Your task to perform on an android device: open app "The Home Depot" (install if not already installed) and go to login screen Image 0: 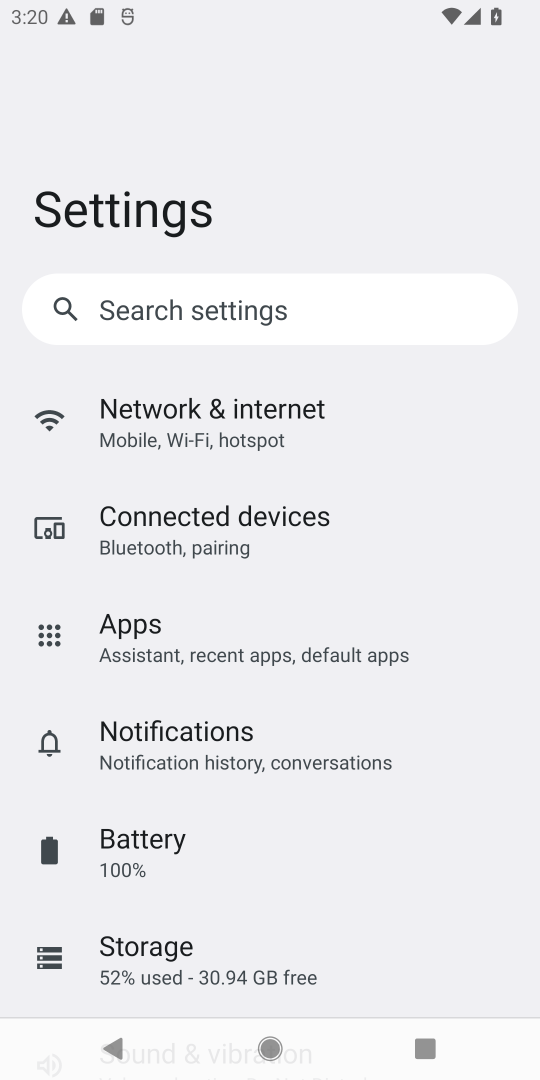
Step 0: press home button
Your task to perform on an android device: open app "The Home Depot" (install if not already installed) and go to login screen Image 1: 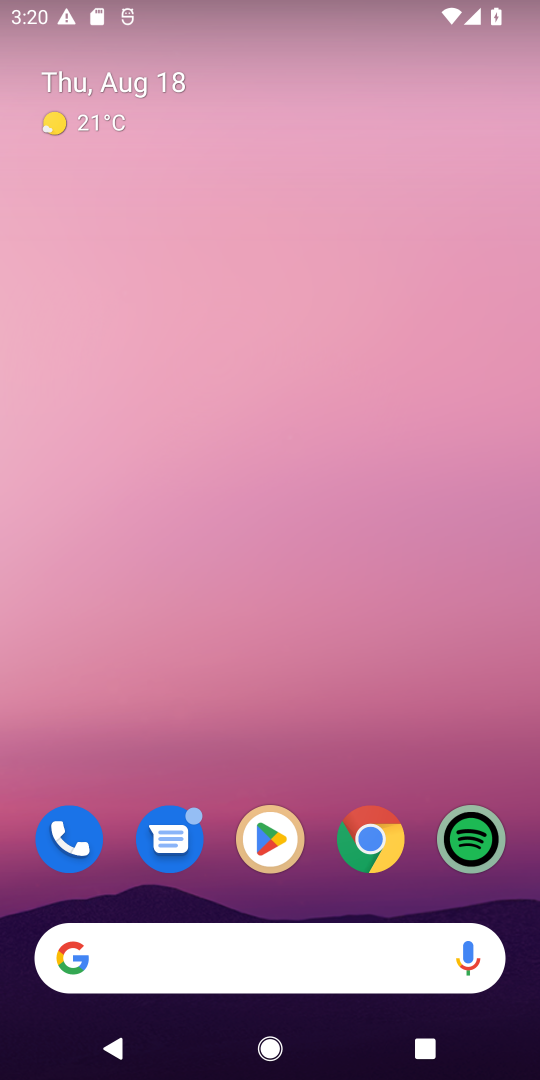
Step 1: click (255, 835)
Your task to perform on an android device: open app "The Home Depot" (install if not already installed) and go to login screen Image 2: 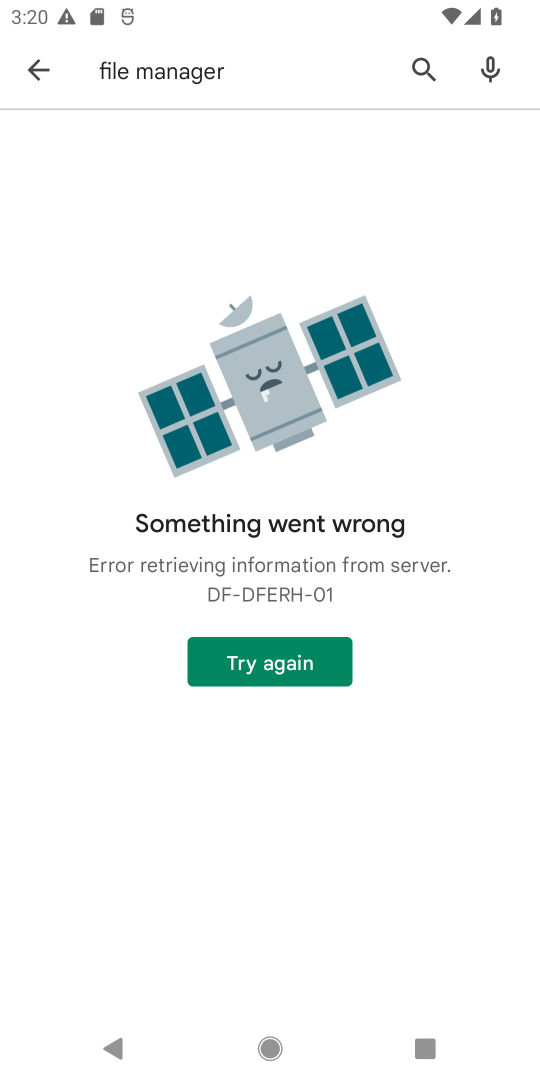
Step 2: click (33, 75)
Your task to perform on an android device: open app "The Home Depot" (install if not already installed) and go to login screen Image 3: 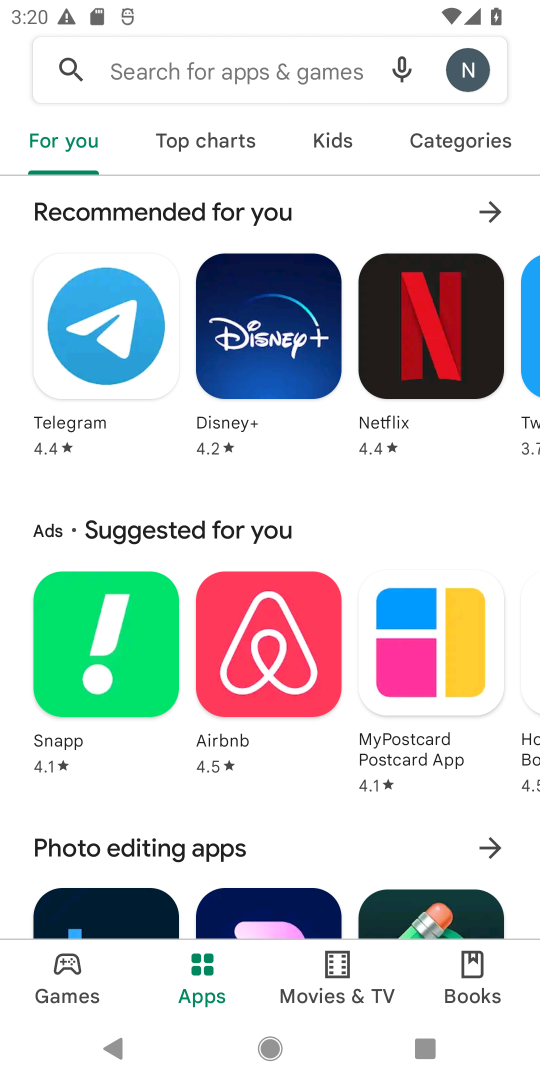
Step 3: click (197, 74)
Your task to perform on an android device: open app "The Home Depot" (install if not already installed) and go to login screen Image 4: 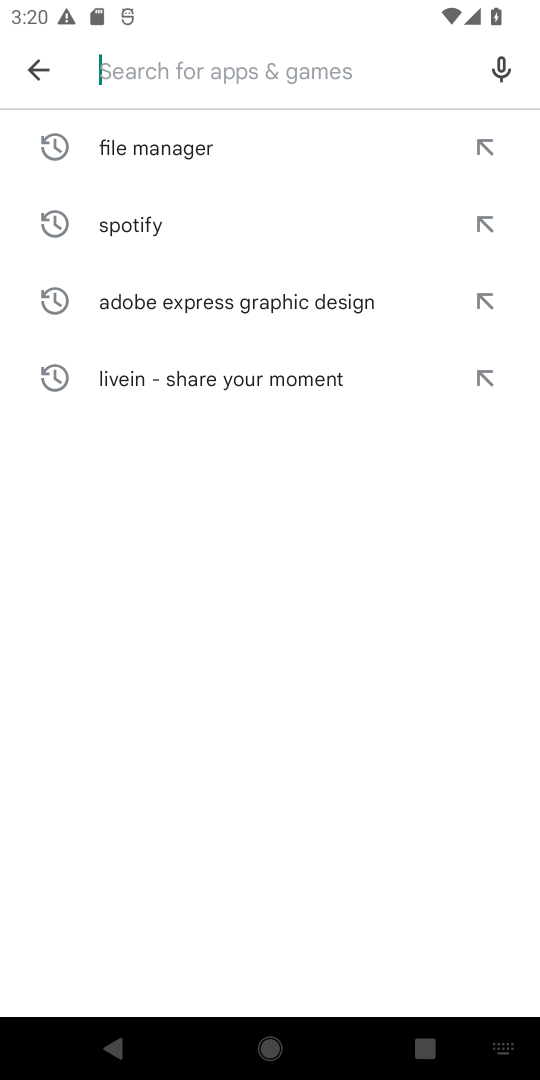
Step 4: type "The Home Depot"
Your task to perform on an android device: open app "The Home Depot" (install if not already installed) and go to login screen Image 5: 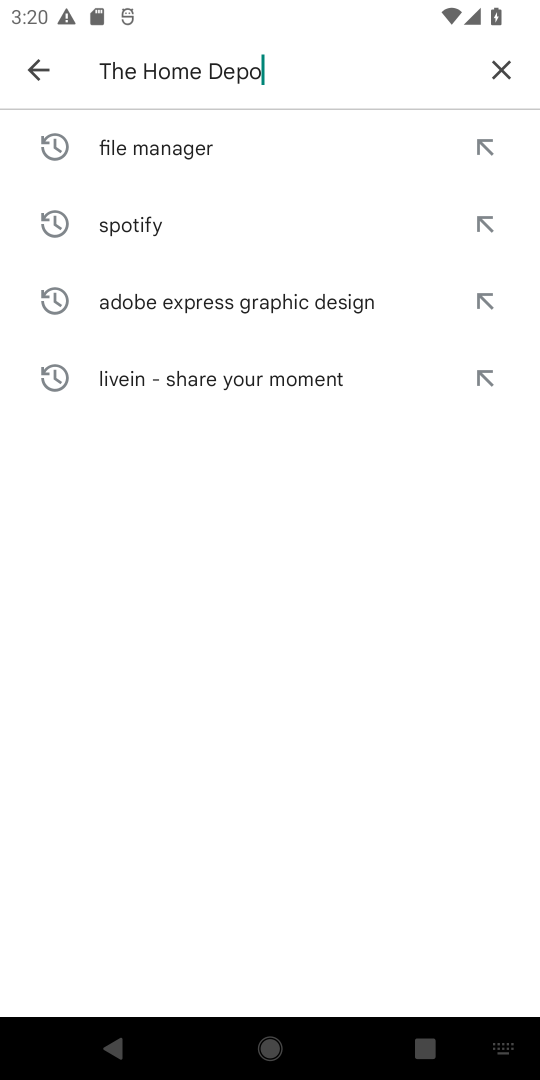
Step 5: type ""
Your task to perform on an android device: open app "The Home Depot" (install if not already installed) and go to login screen Image 6: 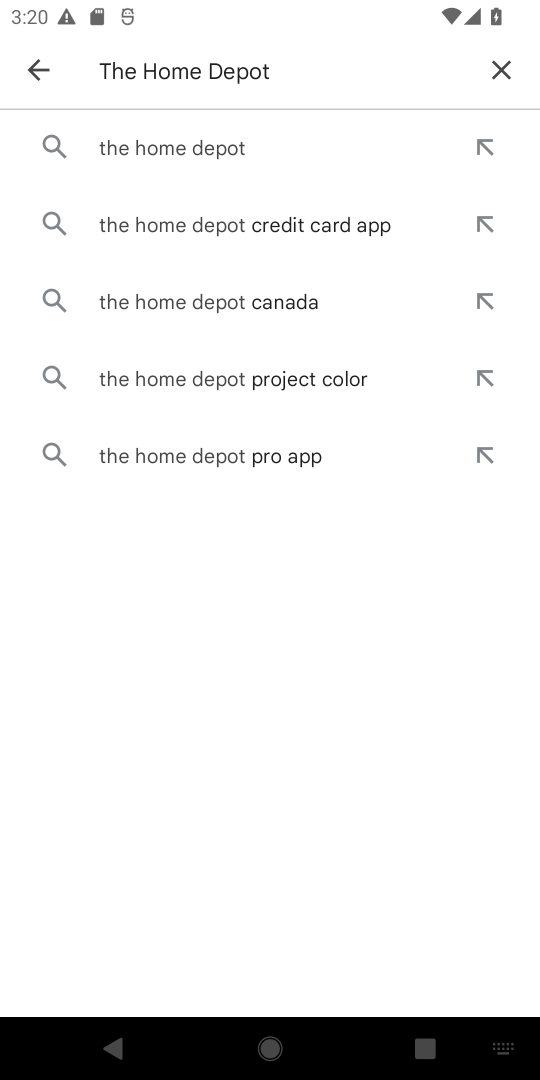
Step 6: click (214, 149)
Your task to perform on an android device: open app "The Home Depot" (install if not already installed) and go to login screen Image 7: 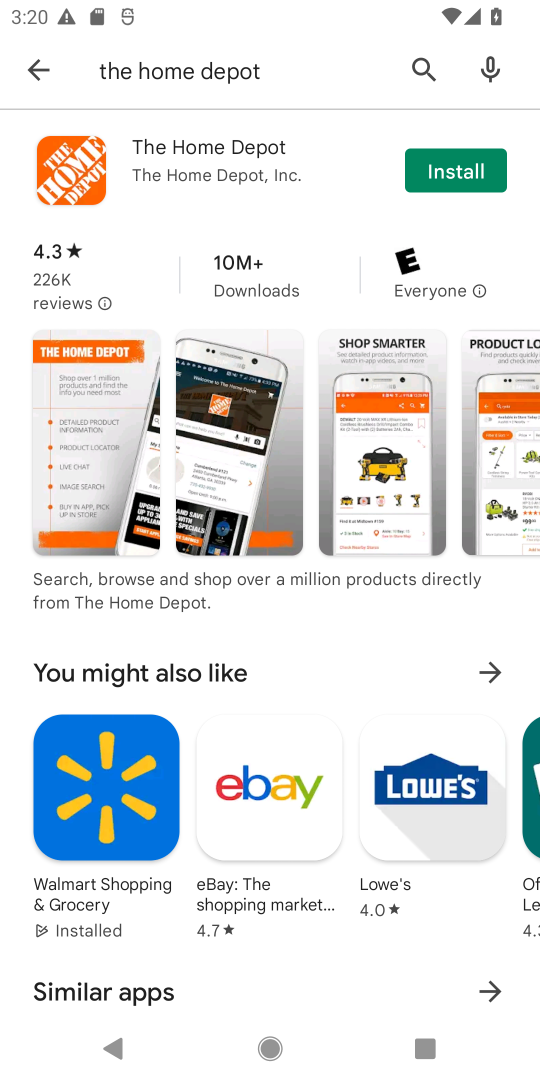
Step 7: click (437, 163)
Your task to perform on an android device: open app "The Home Depot" (install if not already installed) and go to login screen Image 8: 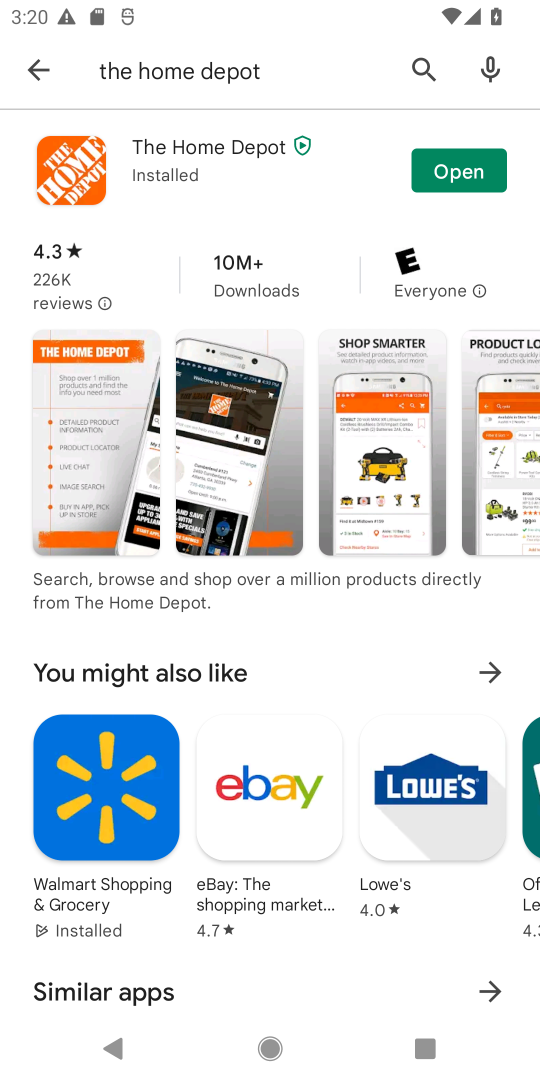
Step 8: click (448, 170)
Your task to perform on an android device: open app "The Home Depot" (install if not already installed) and go to login screen Image 9: 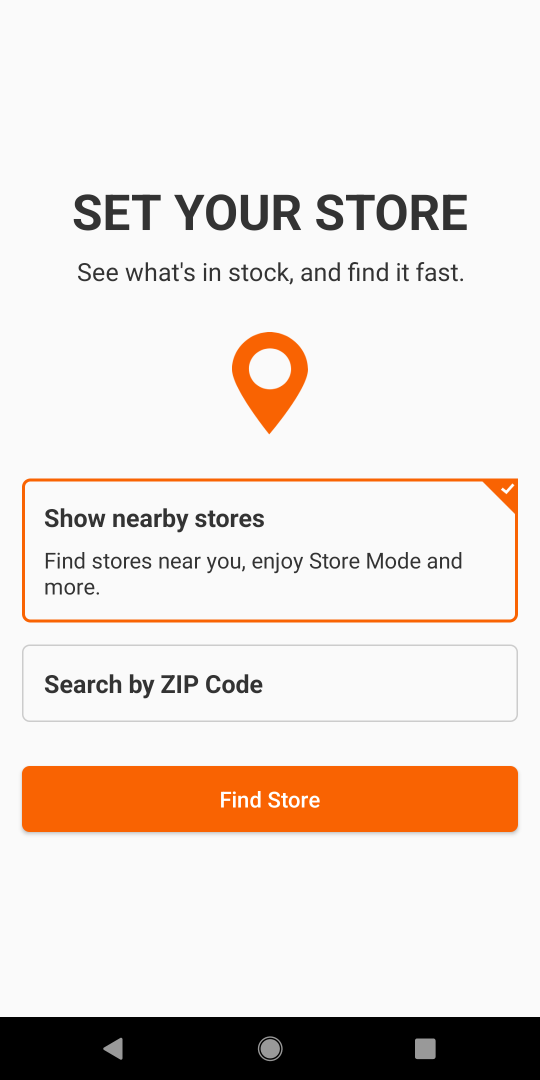
Step 9: click (302, 542)
Your task to perform on an android device: open app "The Home Depot" (install if not already installed) and go to login screen Image 10: 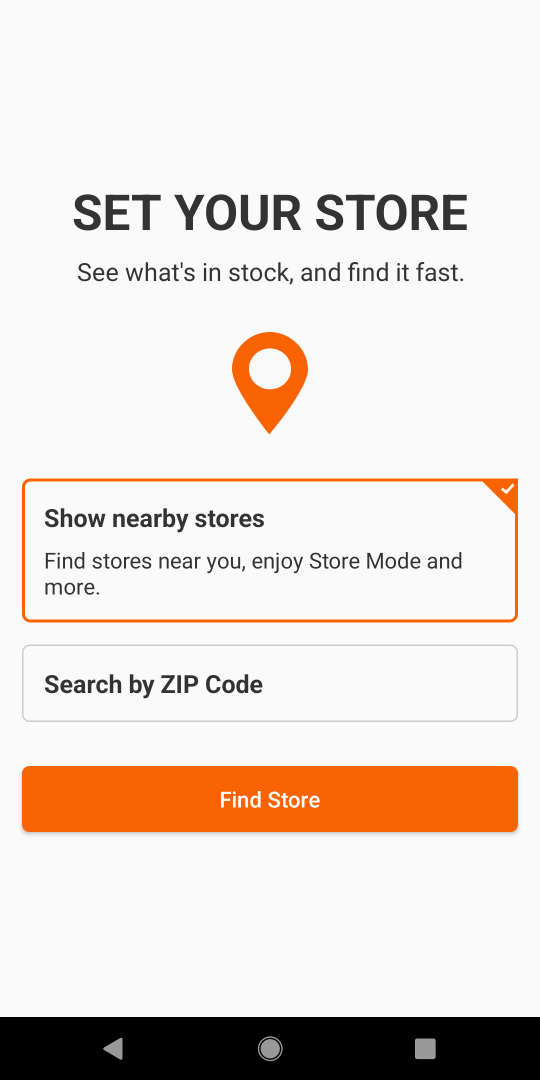
Step 10: click (332, 796)
Your task to perform on an android device: open app "The Home Depot" (install if not already installed) and go to login screen Image 11: 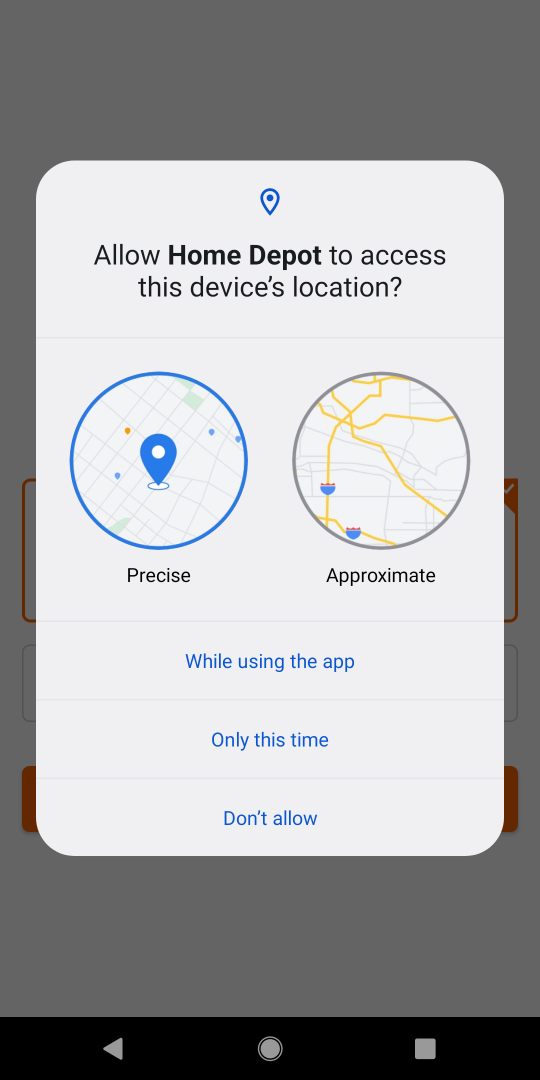
Step 11: click (272, 655)
Your task to perform on an android device: open app "The Home Depot" (install if not already installed) and go to login screen Image 12: 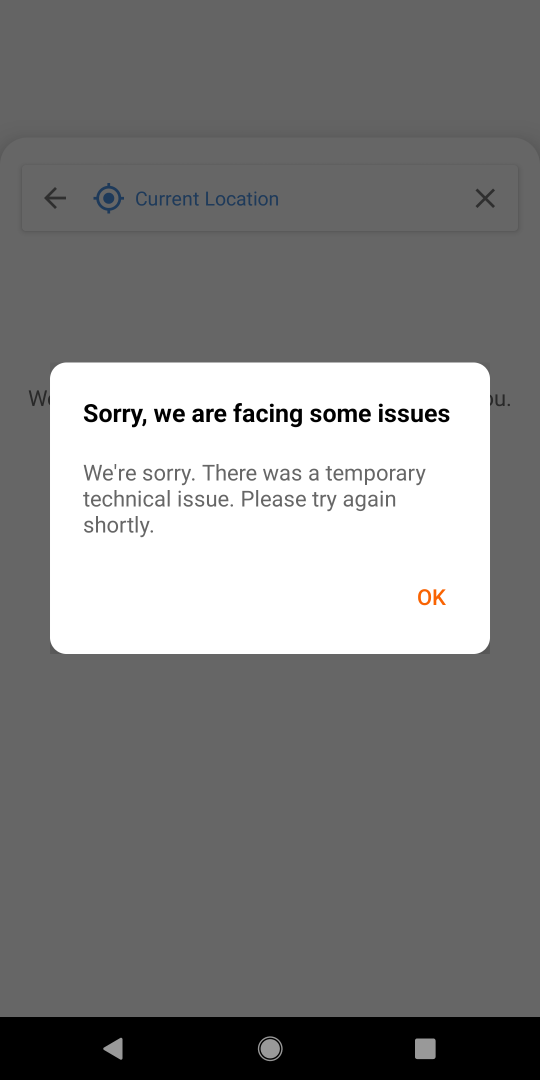
Step 12: click (435, 588)
Your task to perform on an android device: open app "The Home Depot" (install if not already installed) and go to login screen Image 13: 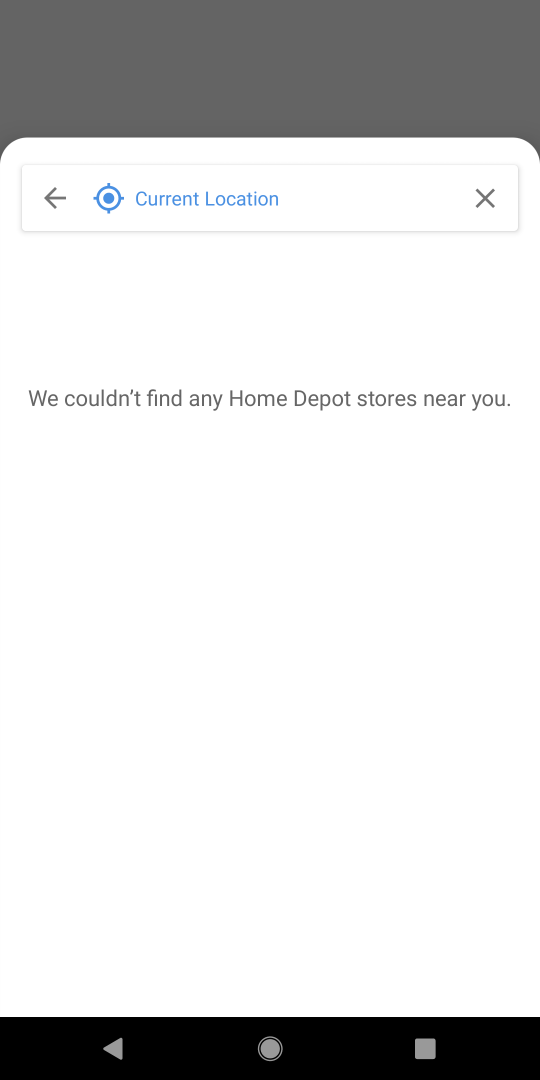
Step 13: task complete